Your task to perform on an android device: allow cookies in the chrome app Image 0: 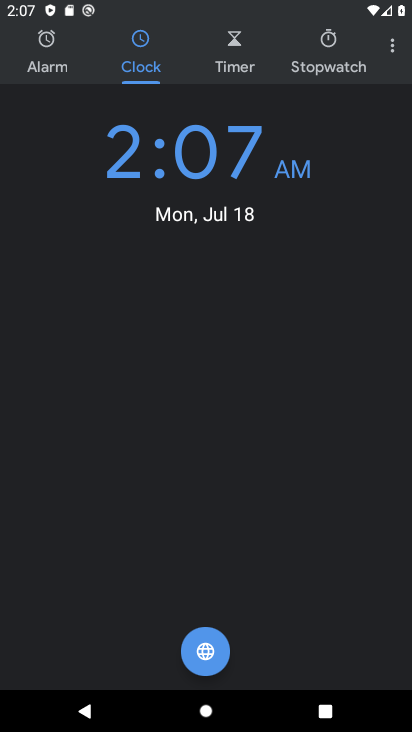
Step 0: press home button
Your task to perform on an android device: allow cookies in the chrome app Image 1: 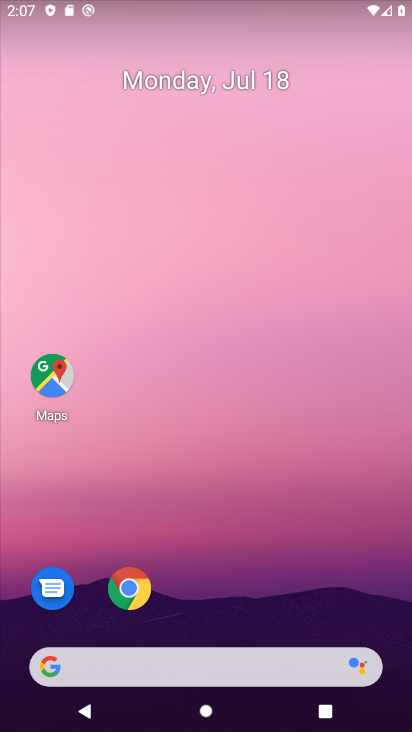
Step 1: drag from (330, 581) to (306, 78)
Your task to perform on an android device: allow cookies in the chrome app Image 2: 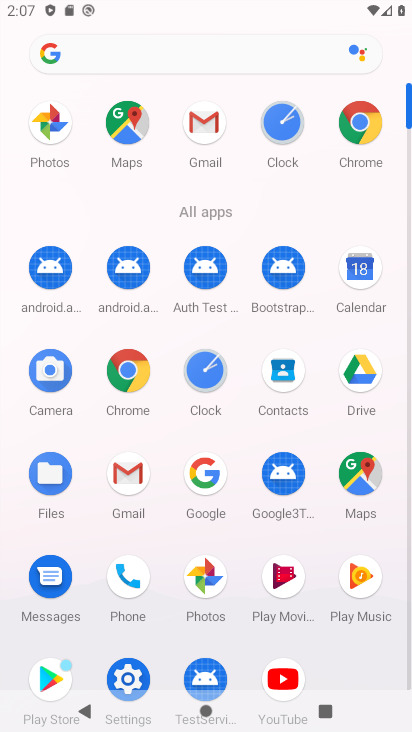
Step 2: click (131, 367)
Your task to perform on an android device: allow cookies in the chrome app Image 3: 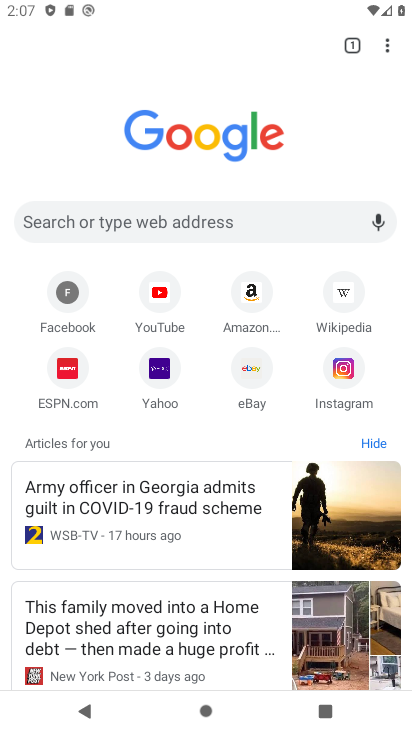
Step 3: drag from (392, 41) to (238, 381)
Your task to perform on an android device: allow cookies in the chrome app Image 4: 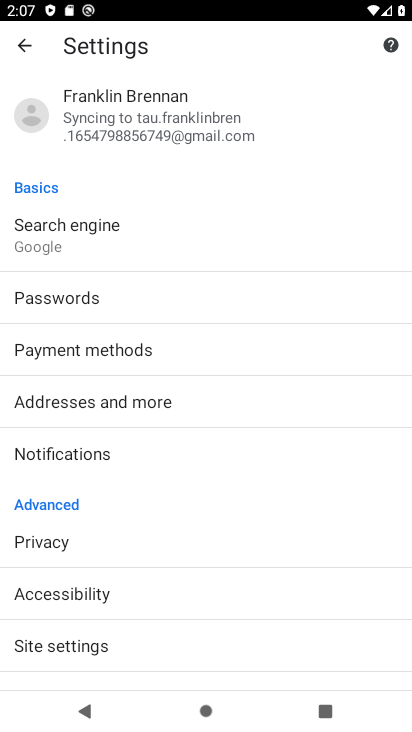
Step 4: drag from (180, 581) to (246, 250)
Your task to perform on an android device: allow cookies in the chrome app Image 5: 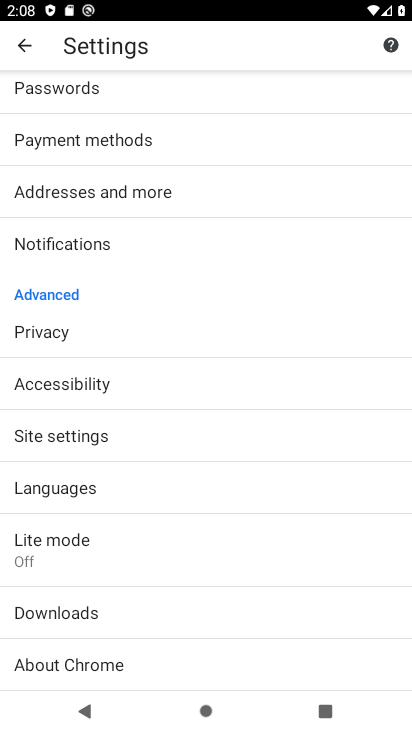
Step 5: click (77, 429)
Your task to perform on an android device: allow cookies in the chrome app Image 6: 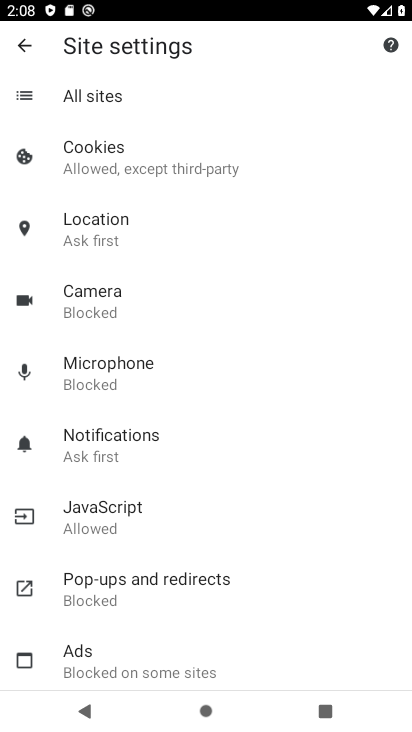
Step 6: click (155, 181)
Your task to perform on an android device: allow cookies in the chrome app Image 7: 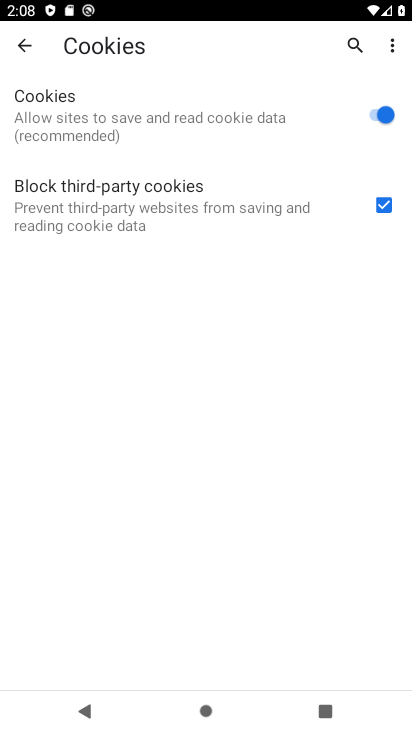
Step 7: task complete